Your task to perform on an android device: Go to CNN.com Image 0: 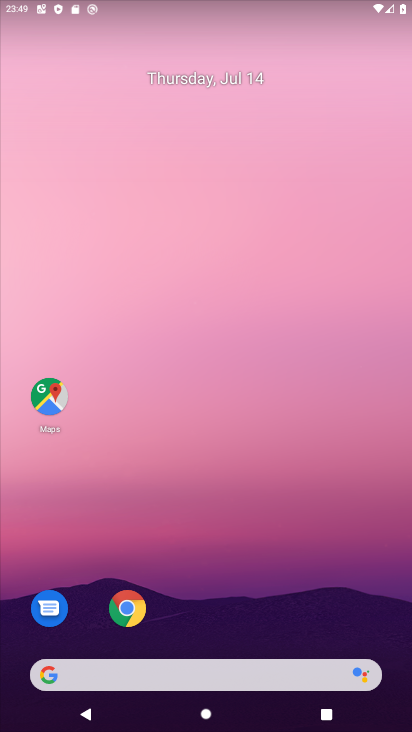
Step 0: click (161, 673)
Your task to perform on an android device: Go to CNN.com Image 1: 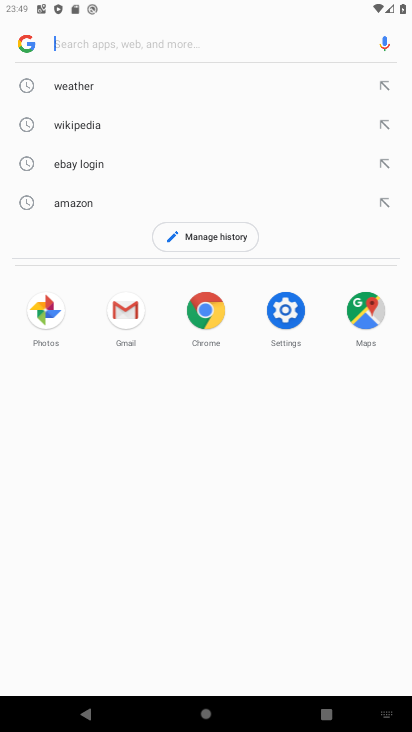
Step 1: type " CNN.com"
Your task to perform on an android device: Go to CNN.com Image 2: 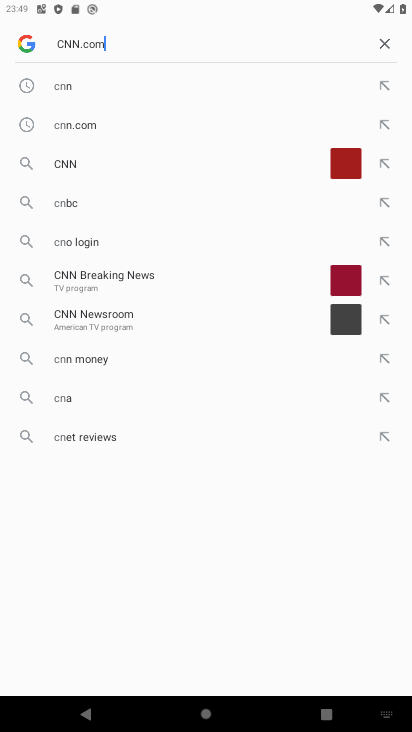
Step 2: type ""
Your task to perform on an android device: Go to CNN.com Image 3: 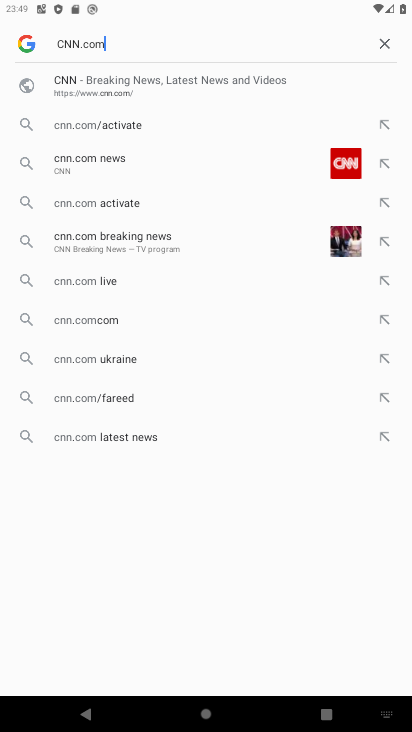
Step 3: type ""
Your task to perform on an android device: Go to CNN.com Image 4: 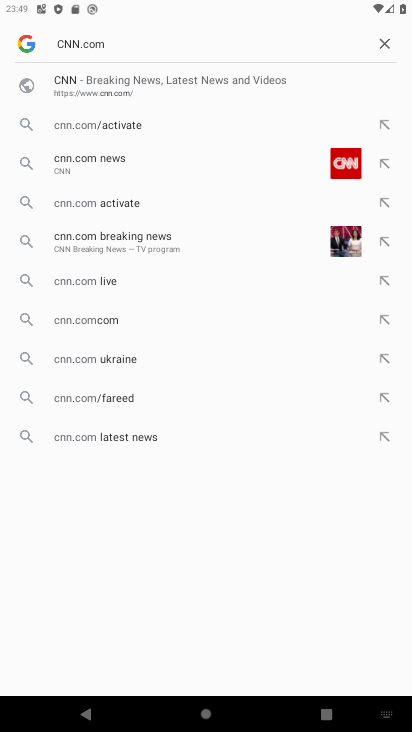
Step 4: type ""
Your task to perform on an android device: Go to CNN.com Image 5: 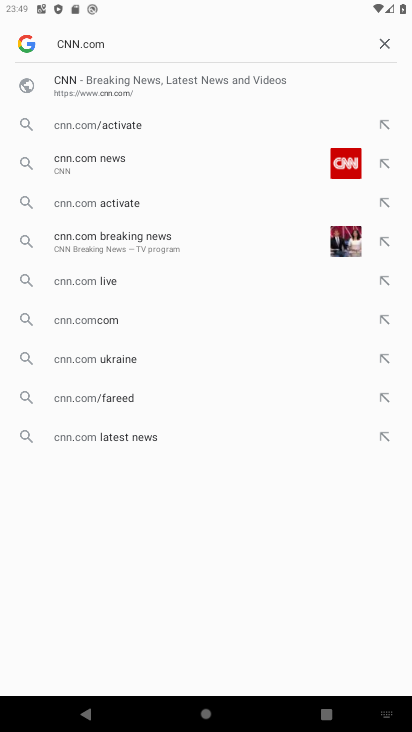
Step 5: task complete